Your task to perform on an android device: turn on sleep mode Image 0: 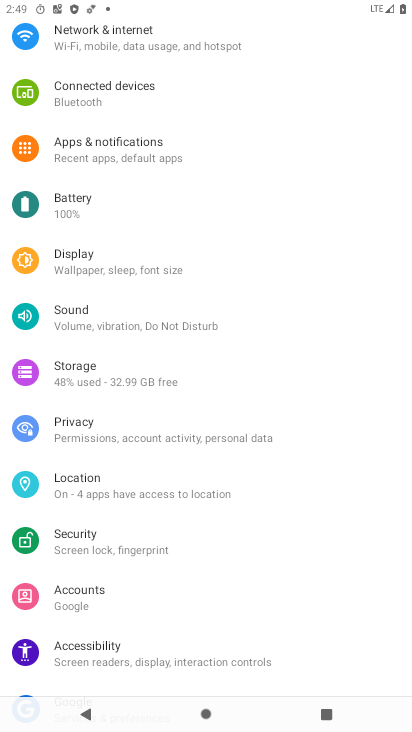
Step 0: press home button
Your task to perform on an android device: turn on sleep mode Image 1: 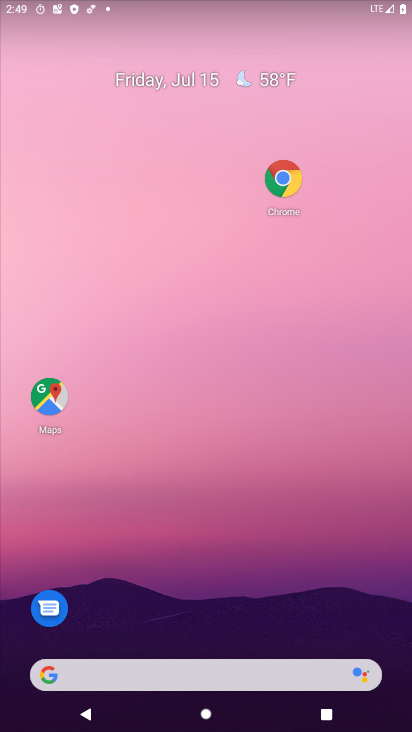
Step 1: drag from (227, 611) to (334, 2)
Your task to perform on an android device: turn on sleep mode Image 2: 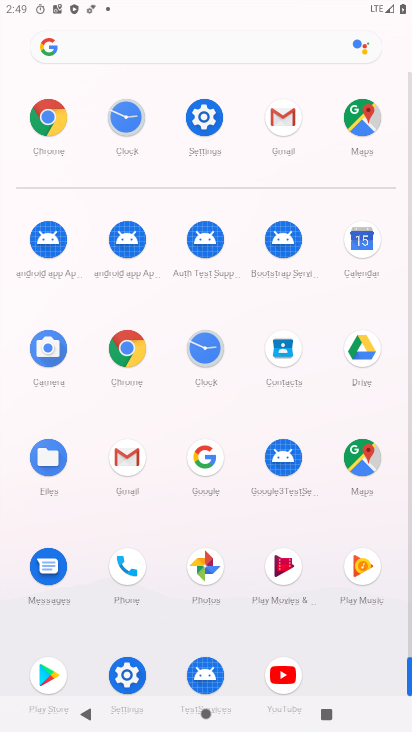
Step 2: click (199, 119)
Your task to perform on an android device: turn on sleep mode Image 3: 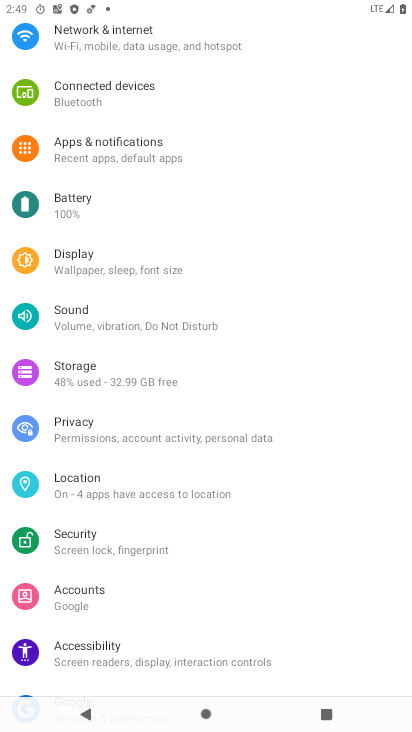
Step 3: click (123, 275)
Your task to perform on an android device: turn on sleep mode Image 4: 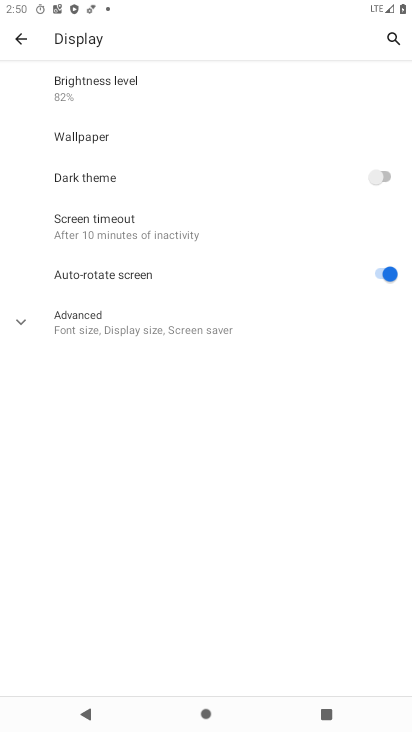
Step 4: task complete